Your task to perform on an android device: add a contact in the contacts app Image 0: 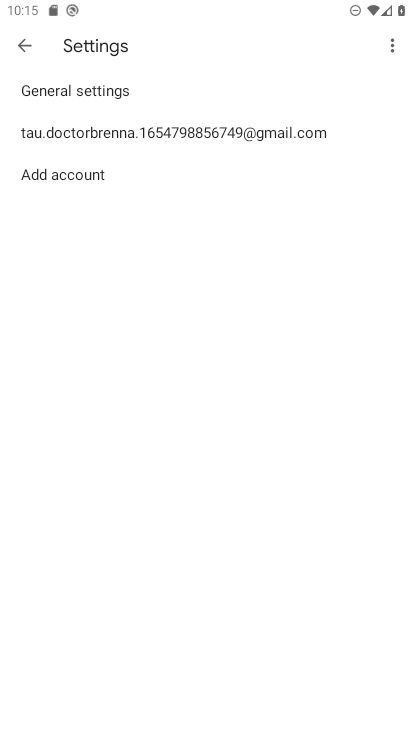
Step 0: press home button
Your task to perform on an android device: add a contact in the contacts app Image 1: 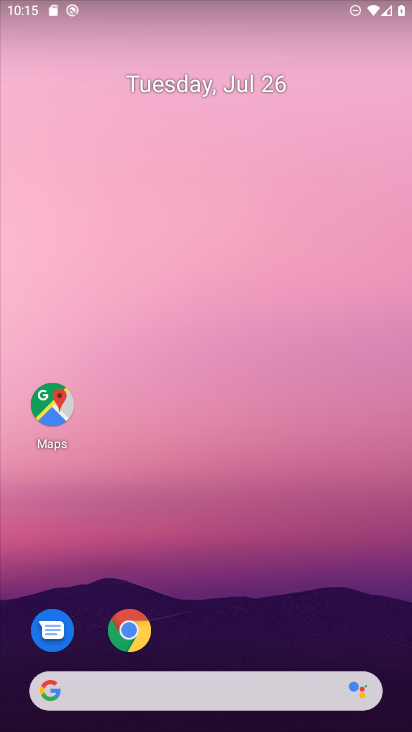
Step 1: drag from (388, 651) to (326, 170)
Your task to perform on an android device: add a contact in the contacts app Image 2: 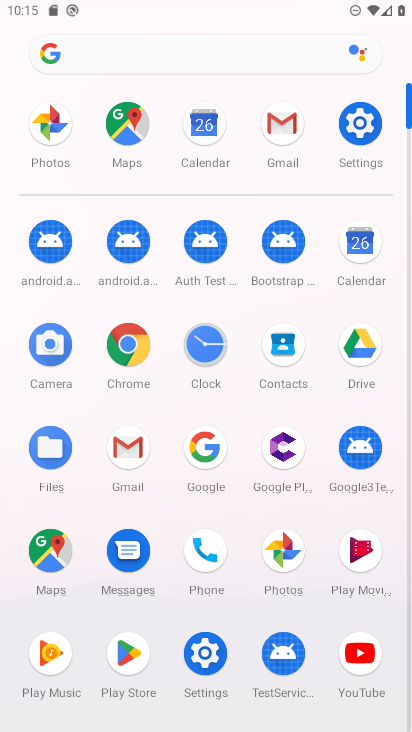
Step 2: click (284, 349)
Your task to perform on an android device: add a contact in the contacts app Image 3: 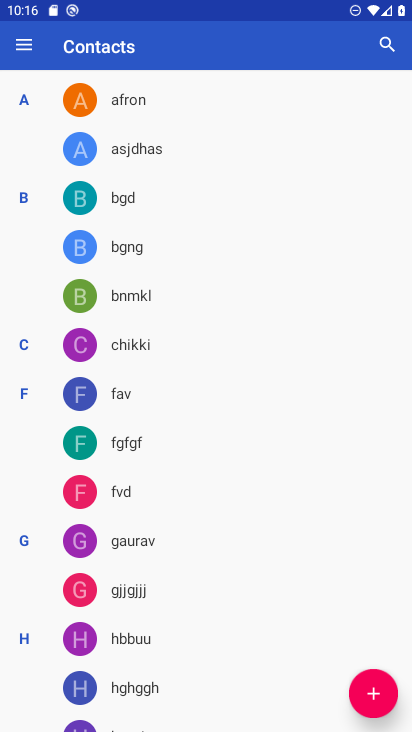
Step 3: click (377, 695)
Your task to perform on an android device: add a contact in the contacts app Image 4: 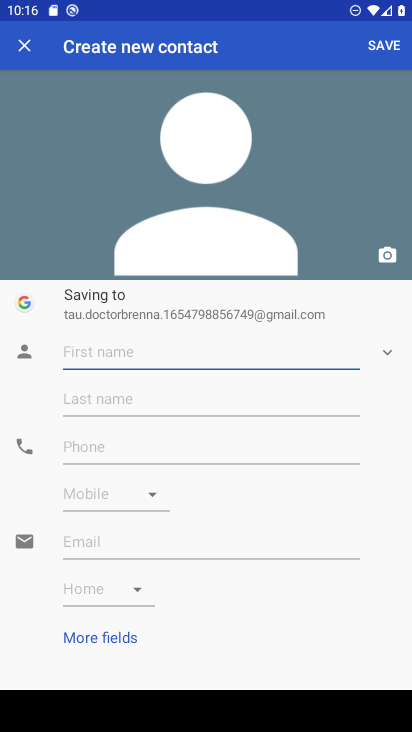
Step 4: type "ujkjljluyt"
Your task to perform on an android device: add a contact in the contacts app Image 5: 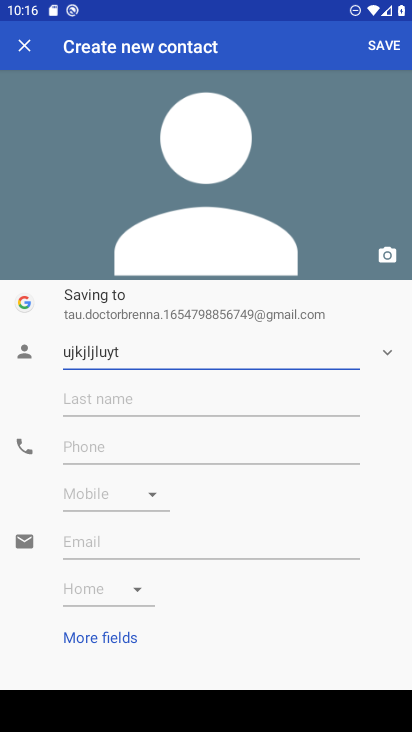
Step 5: click (91, 448)
Your task to perform on an android device: add a contact in the contacts app Image 6: 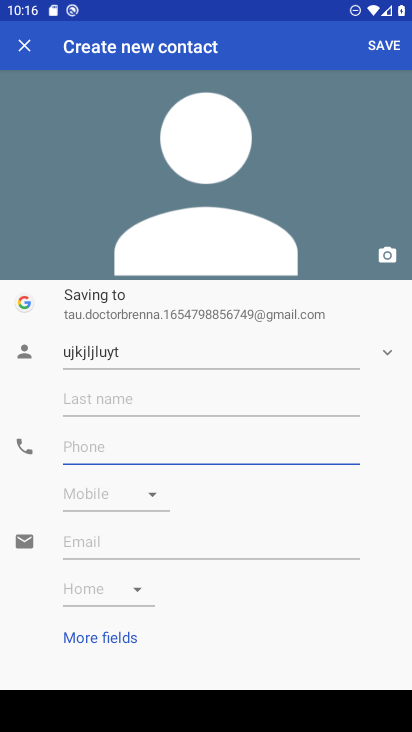
Step 6: type "098754674"
Your task to perform on an android device: add a contact in the contacts app Image 7: 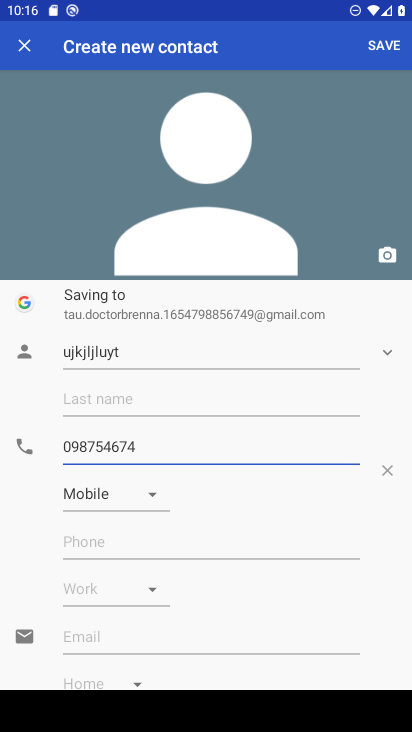
Step 7: click (376, 46)
Your task to perform on an android device: add a contact in the contacts app Image 8: 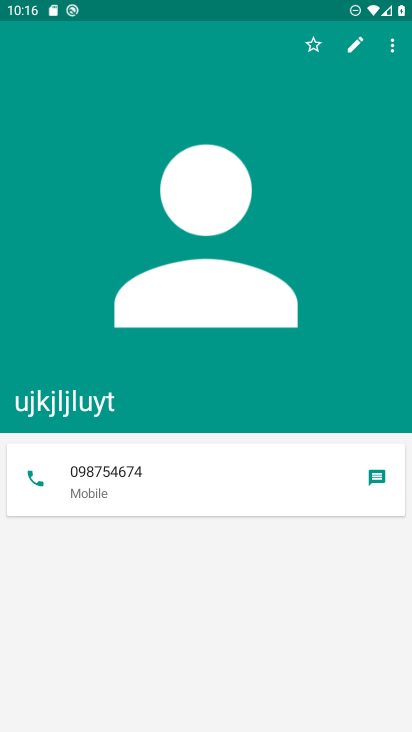
Step 8: task complete